Your task to perform on an android device: search for starred emails in the gmail app Image 0: 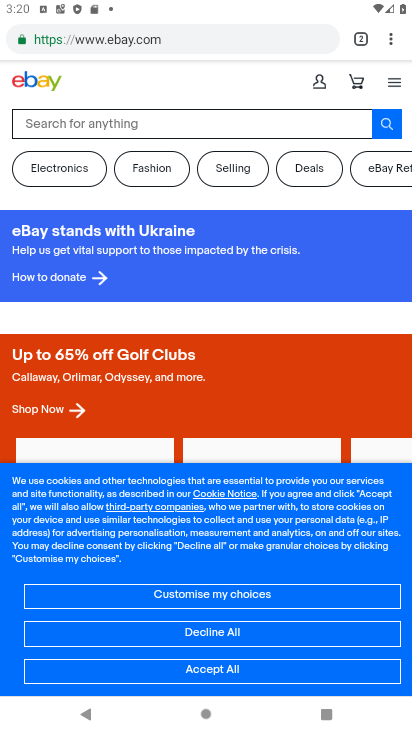
Step 0: press home button
Your task to perform on an android device: search for starred emails in the gmail app Image 1: 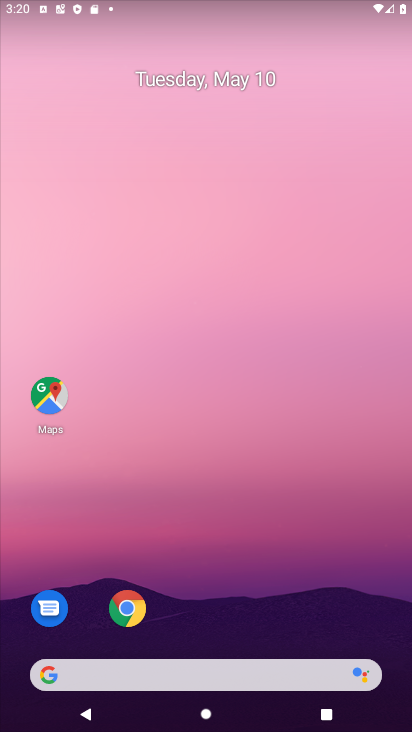
Step 1: drag from (357, 616) to (301, 94)
Your task to perform on an android device: search for starred emails in the gmail app Image 2: 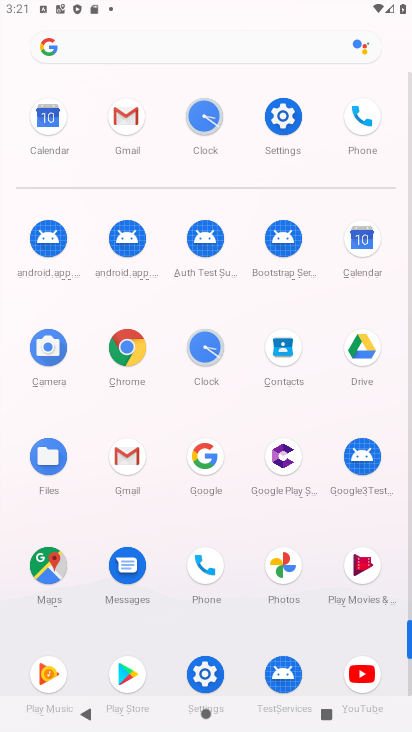
Step 2: click (124, 453)
Your task to perform on an android device: search for starred emails in the gmail app Image 3: 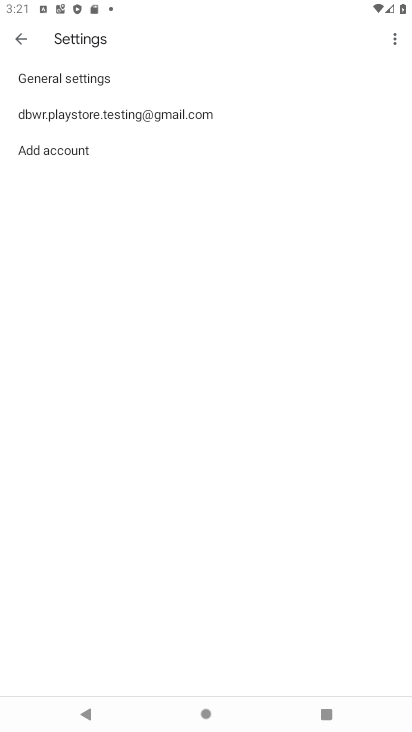
Step 3: press back button
Your task to perform on an android device: search for starred emails in the gmail app Image 4: 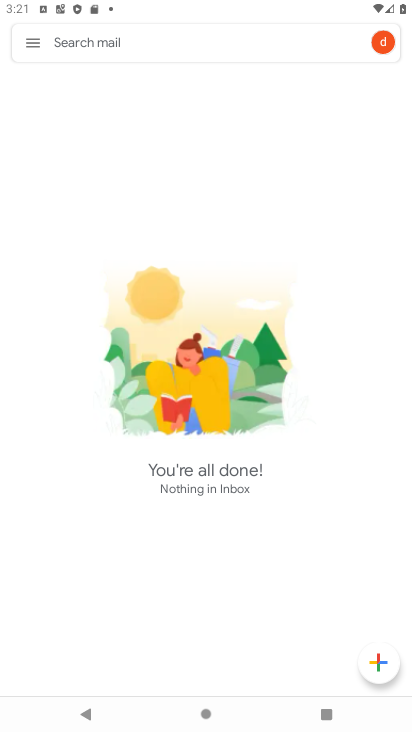
Step 4: click (31, 42)
Your task to perform on an android device: search for starred emails in the gmail app Image 5: 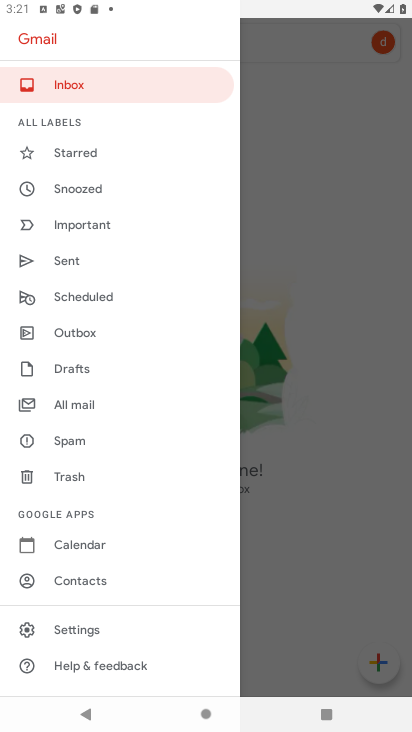
Step 5: click (71, 152)
Your task to perform on an android device: search for starred emails in the gmail app Image 6: 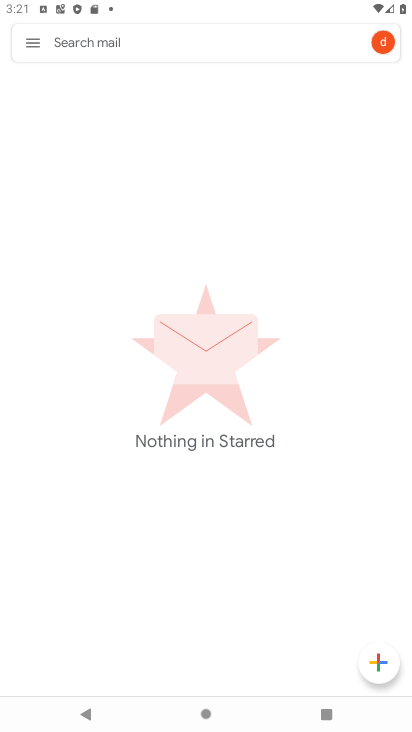
Step 6: task complete